Your task to perform on an android device: Open Google Chrome and click the shortcut for Amazon.com Image 0: 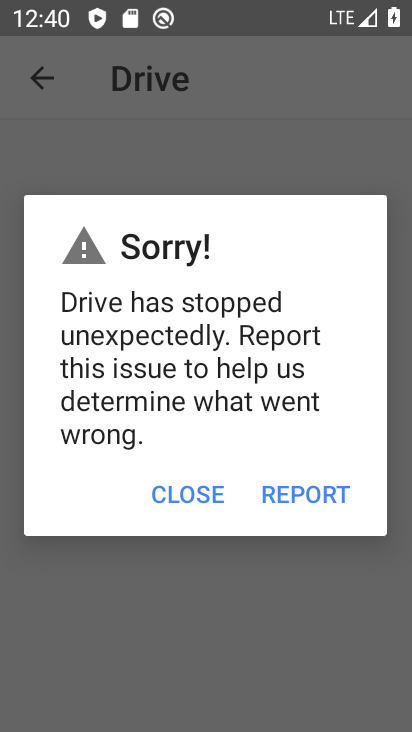
Step 0: click (221, 493)
Your task to perform on an android device: Open Google Chrome and click the shortcut for Amazon.com Image 1: 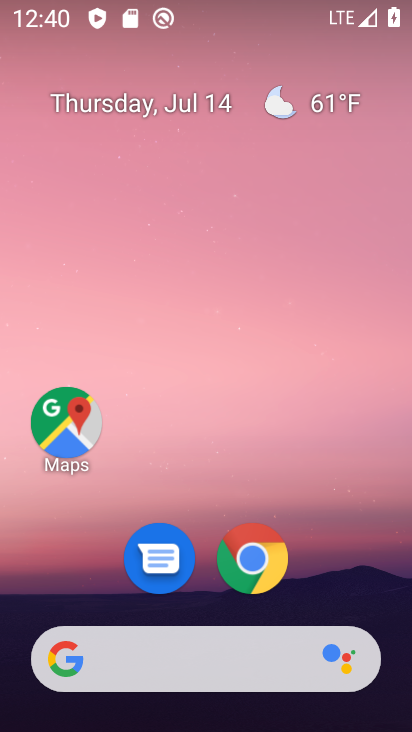
Step 1: click (243, 555)
Your task to perform on an android device: Open Google Chrome and click the shortcut for Amazon.com Image 2: 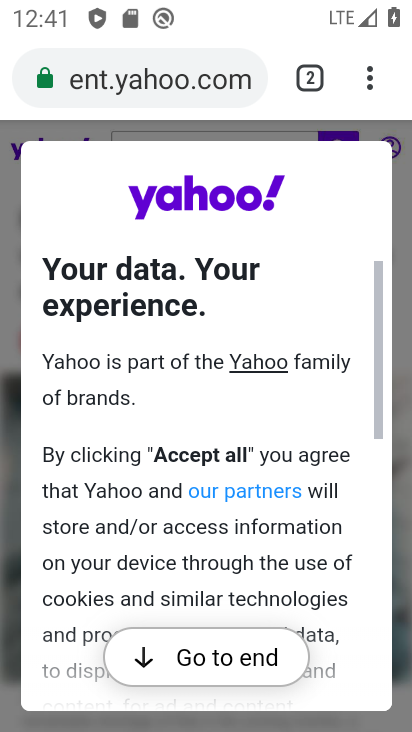
Step 2: click (303, 78)
Your task to perform on an android device: Open Google Chrome and click the shortcut for Amazon.com Image 3: 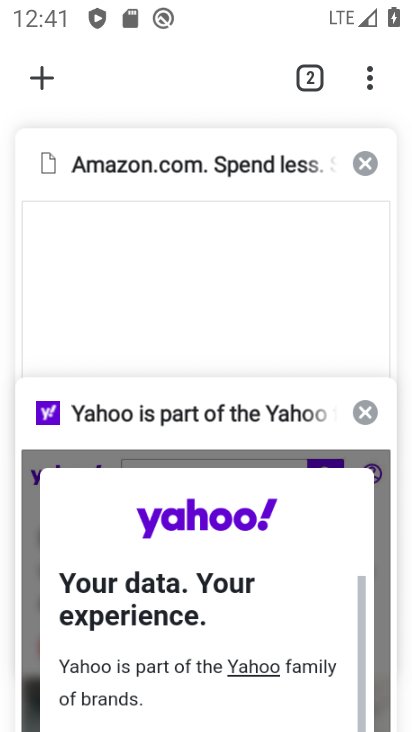
Step 3: click (173, 157)
Your task to perform on an android device: Open Google Chrome and click the shortcut for Amazon.com Image 4: 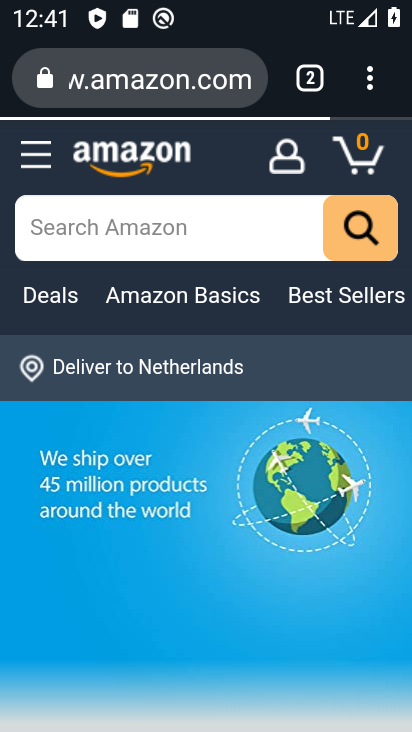
Step 4: task complete